Your task to perform on an android device: Open Reddit.com Image 0: 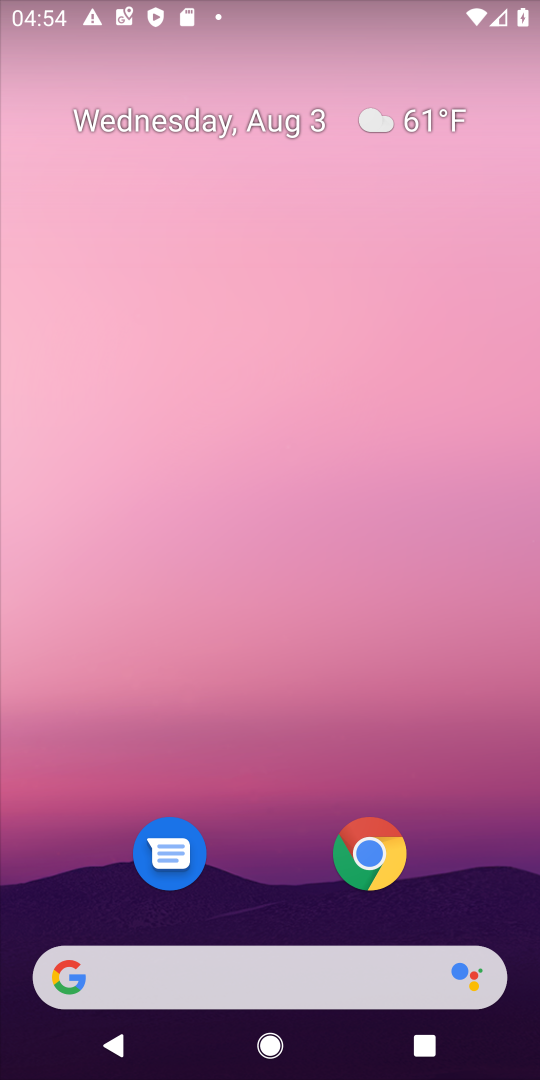
Step 0: click (367, 849)
Your task to perform on an android device: Open Reddit.com Image 1: 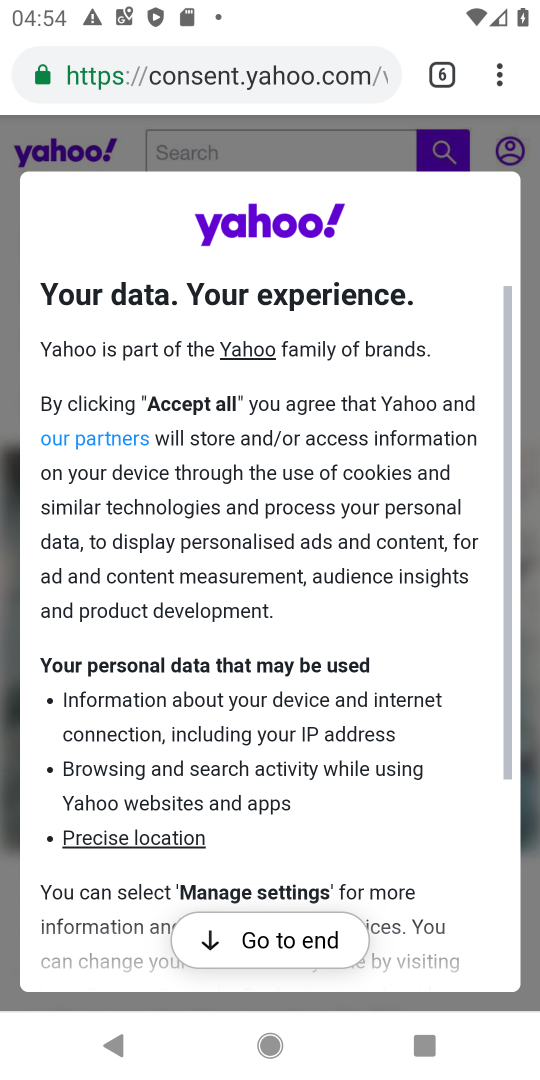
Step 1: click (503, 84)
Your task to perform on an android device: Open Reddit.com Image 2: 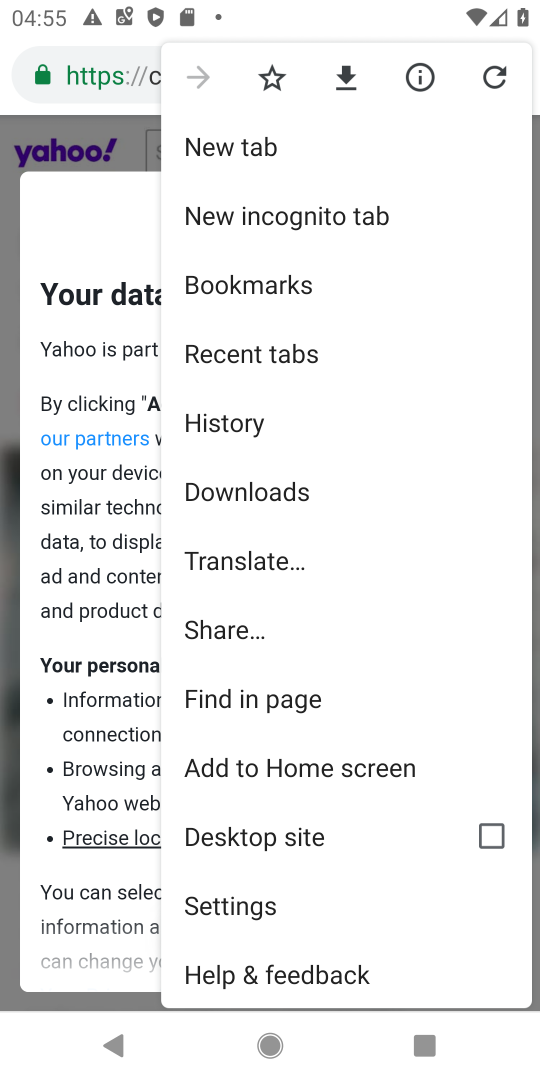
Step 2: click (249, 149)
Your task to perform on an android device: Open Reddit.com Image 3: 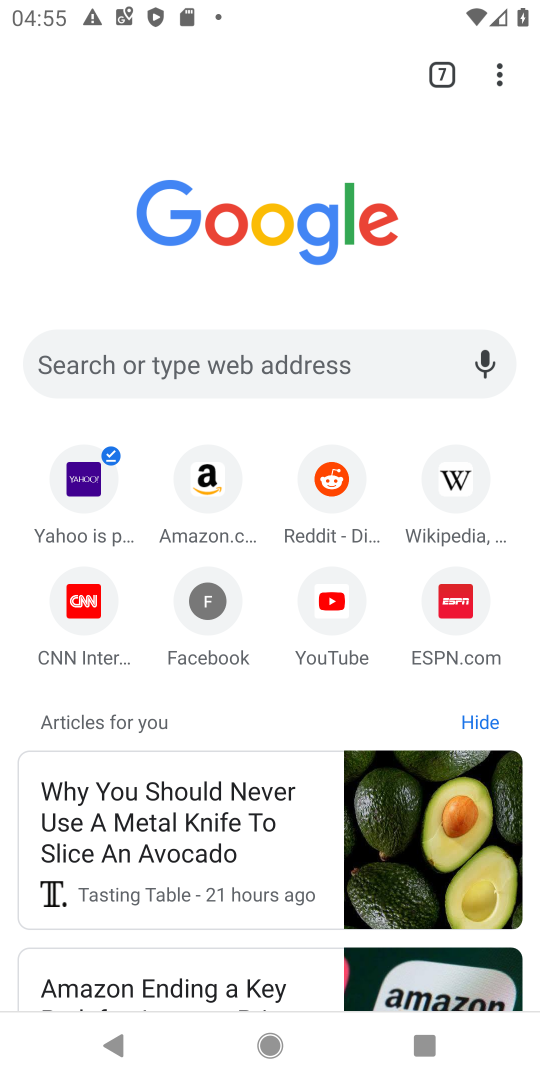
Step 3: click (328, 495)
Your task to perform on an android device: Open Reddit.com Image 4: 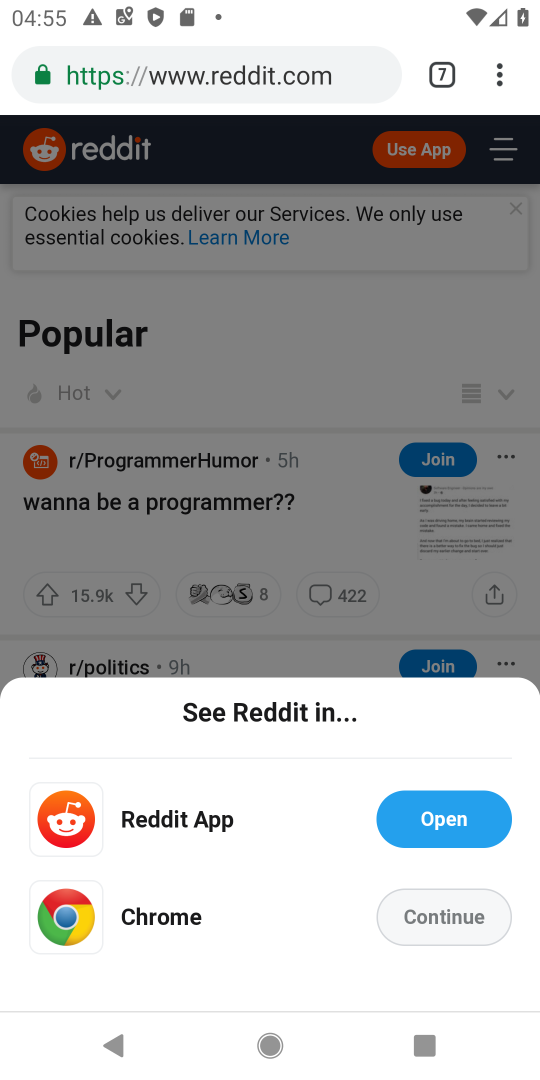
Step 4: task complete